Your task to perform on an android device: Open notification settings Image 0: 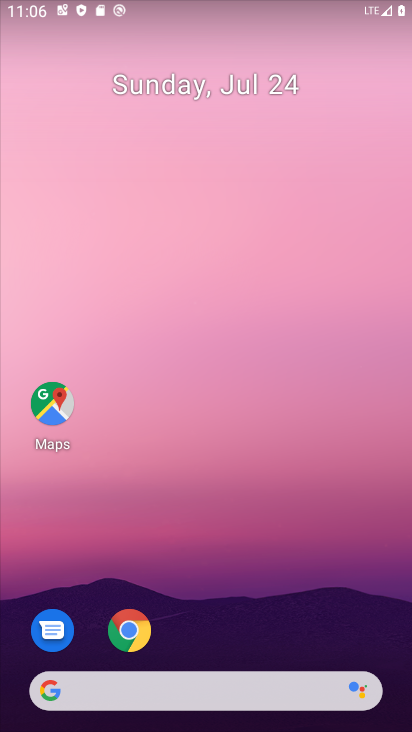
Step 0: drag from (230, 611) to (284, 221)
Your task to perform on an android device: Open notification settings Image 1: 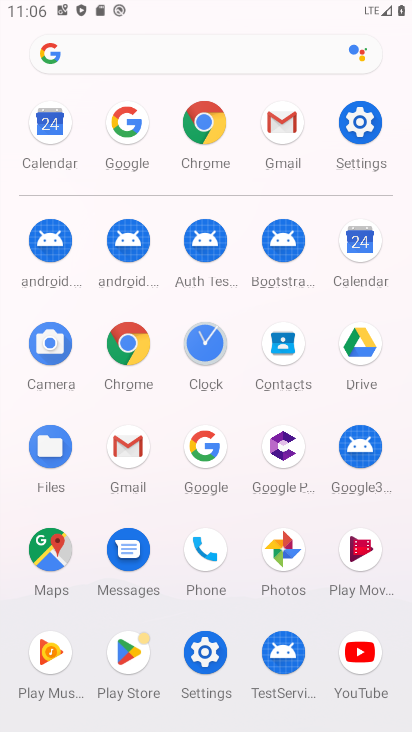
Step 1: click (358, 158)
Your task to perform on an android device: Open notification settings Image 2: 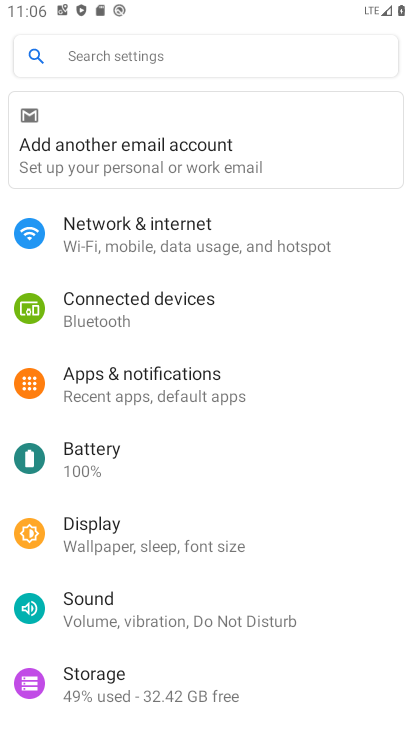
Step 2: click (138, 396)
Your task to perform on an android device: Open notification settings Image 3: 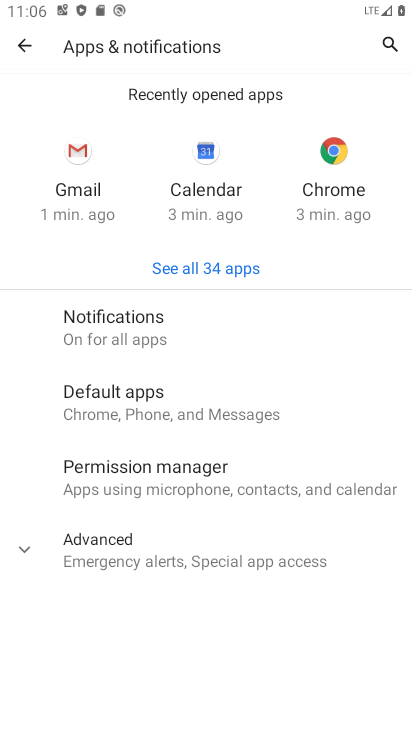
Step 3: click (217, 316)
Your task to perform on an android device: Open notification settings Image 4: 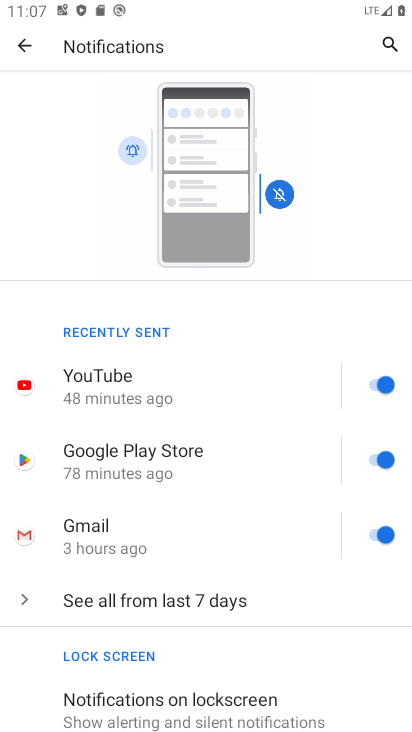
Step 4: task complete